Your task to perform on an android device: turn on priority inbox in the gmail app Image 0: 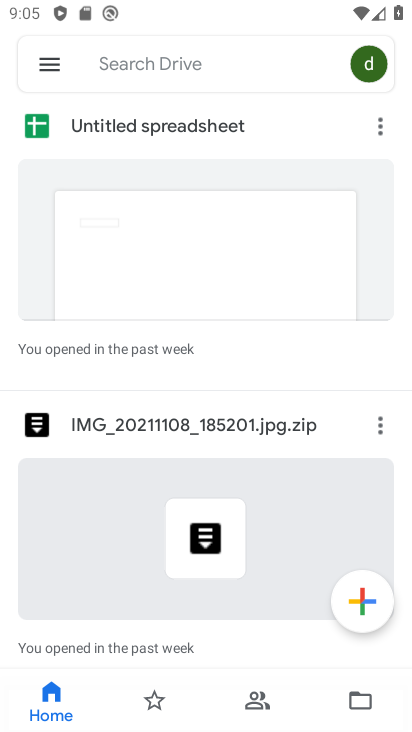
Step 0: task complete